Your task to perform on an android device: Open Chrome and go to the settings page Image 0: 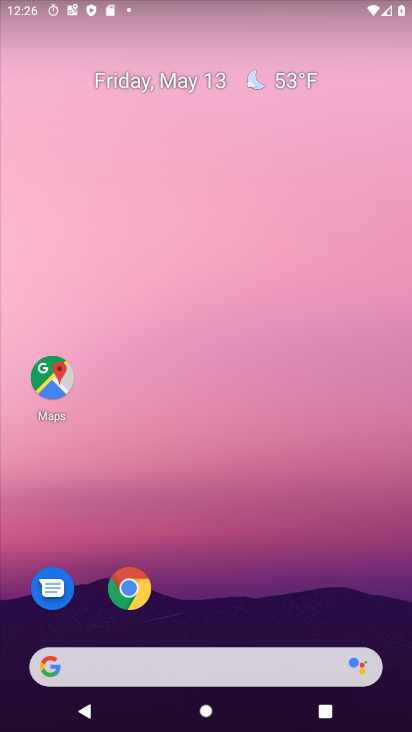
Step 0: drag from (323, 590) to (246, 206)
Your task to perform on an android device: Open Chrome and go to the settings page Image 1: 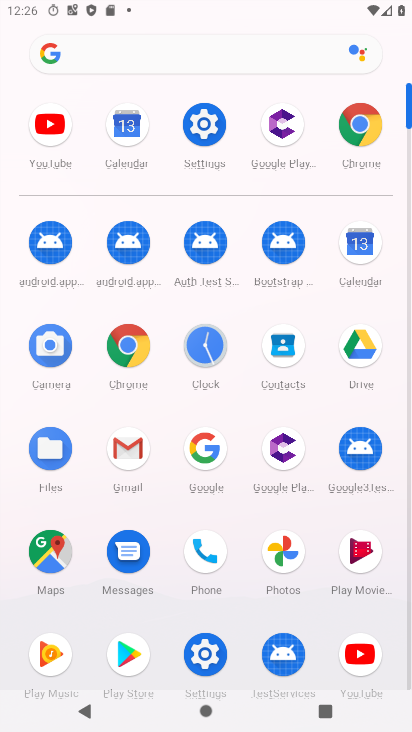
Step 1: click (129, 341)
Your task to perform on an android device: Open Chrome and go to the settings page Image 2: 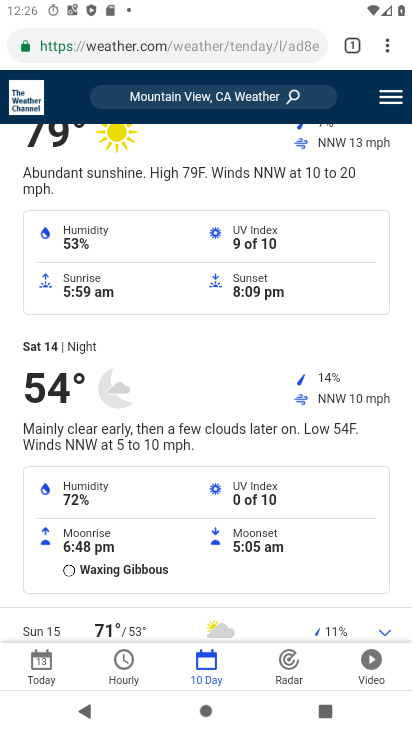
Step 2: task complete